Your task to perform on an android device: Open notification settings Image 0: 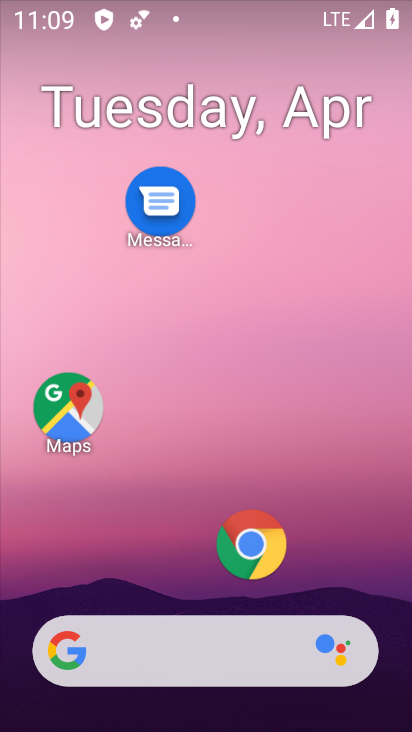
Step 0: drag from (160, 582) to (293, 1)
Your task to perform on an android device: Open notification settings Image 1: 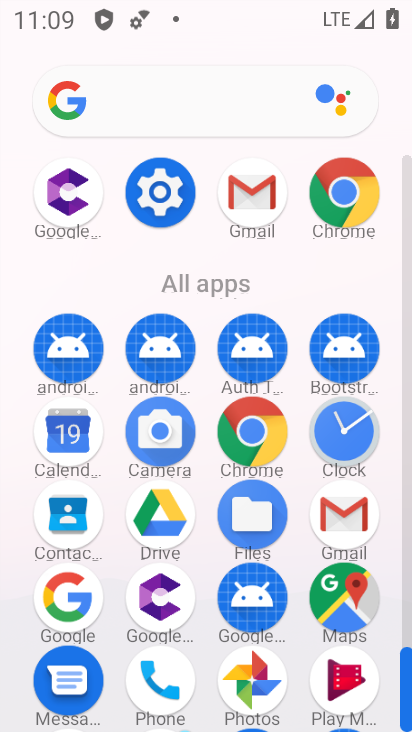
Step 1: click (170, 196)
Your task to perform on an android device: Open notification settings Image 2: 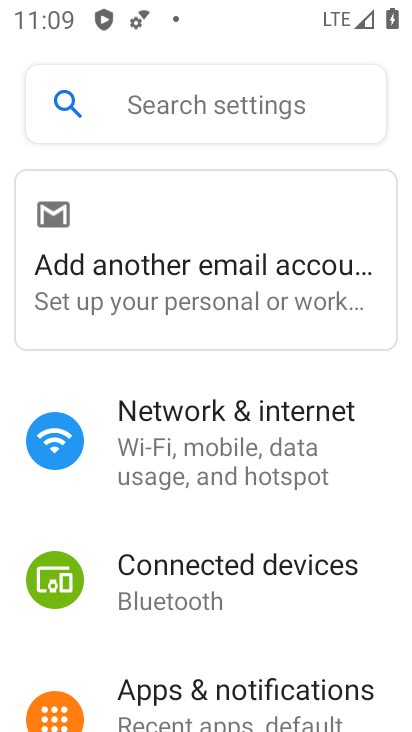
Step 2: click (206, 692)
Your task to perform on an android device: Open notification settings Image 3: 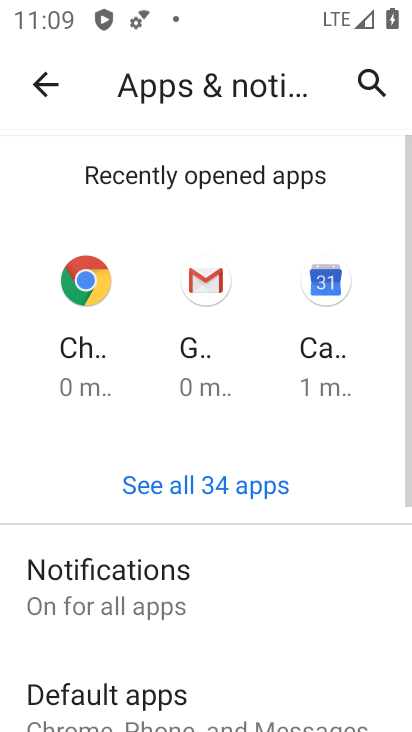
Step 3: click (101, 585)
Your task to perform on an android device: Open notification settings Image 4: 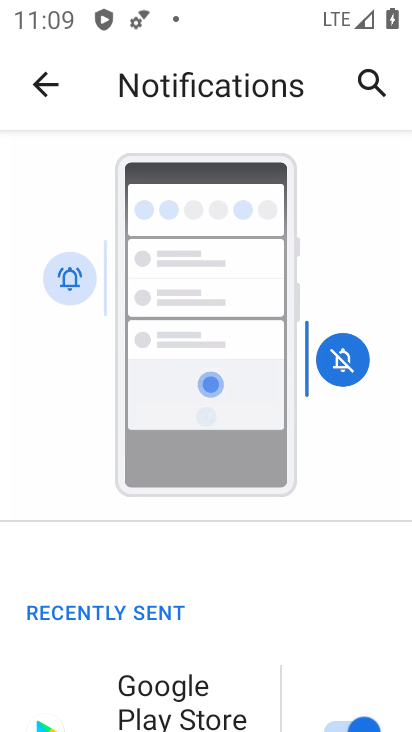
Step 4: task complete